Your task to perform on an android device: open wifi settings Image 0: 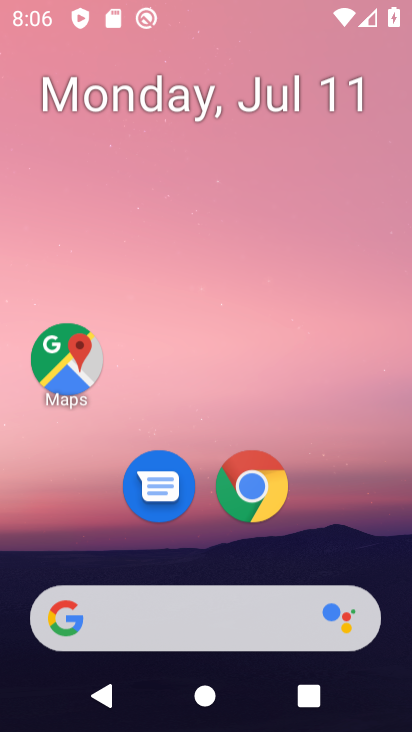
Step 0: drag from (162, 540) to (251, 3)
Your task to perform on an android device: open wifi settings Image 1: 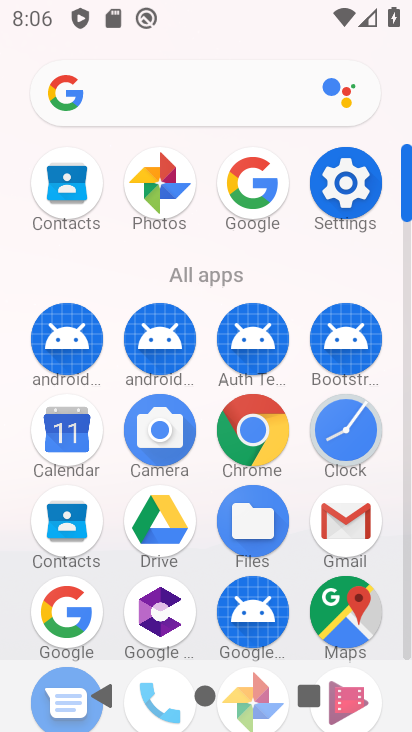
Step 1: click (346, 193)
Your task to perform on an android device: open wifi settings Image 2: 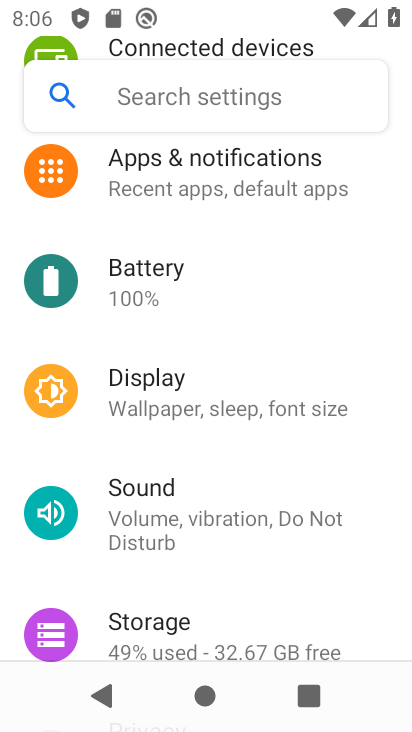
Step 2: drag from (195, 13) to (180, 477)
Your task to perform on an android device: open wifi settings Image 3: 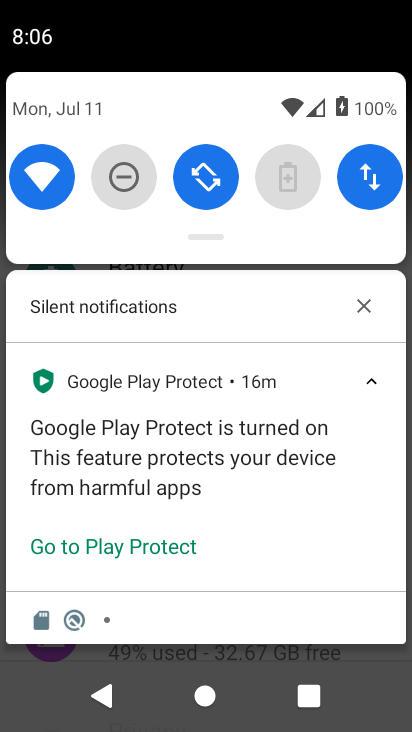
Step 3: click (50, 183)
Your task to perform on an android device: open wifi settings Image 4: 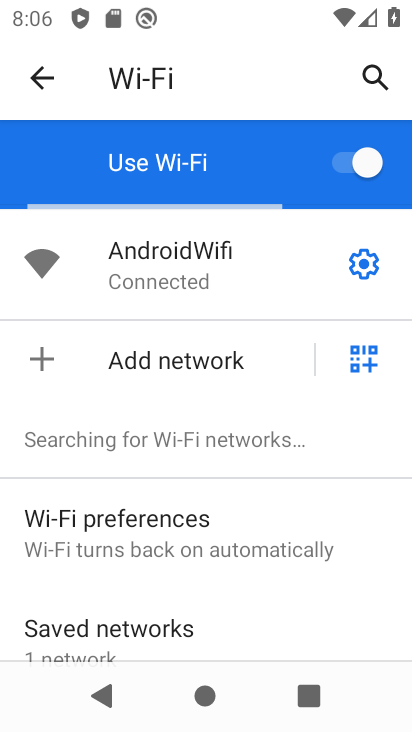
Step 4: task complete